Your task to perform on an android device: Empty the shopping cart on target.com. Image 0: 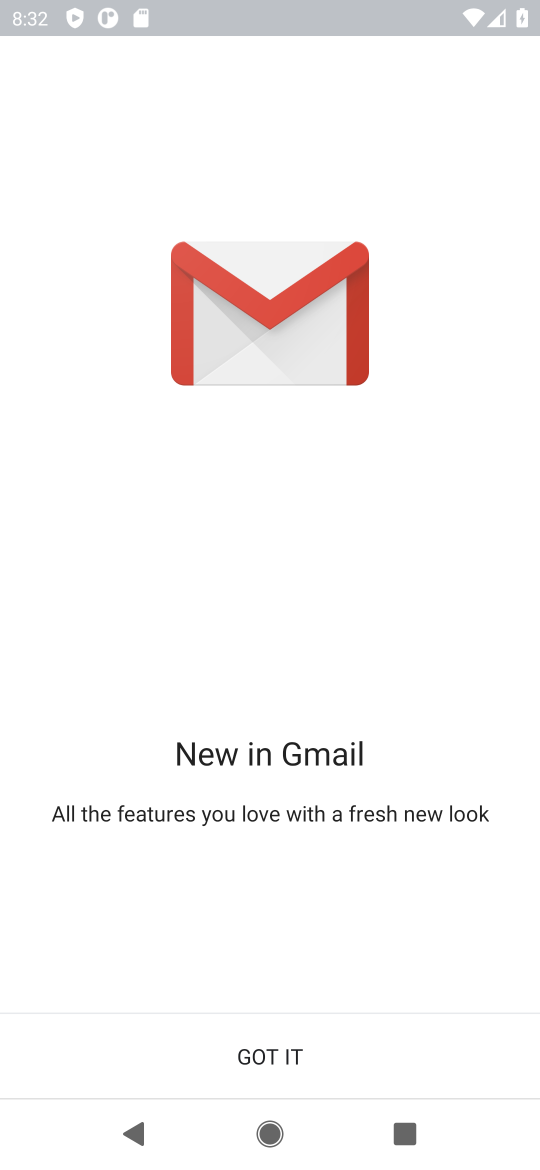
Step 0: press home button
Your task to perform on an android device: Empty the shopping cart on target.com. Image 1: 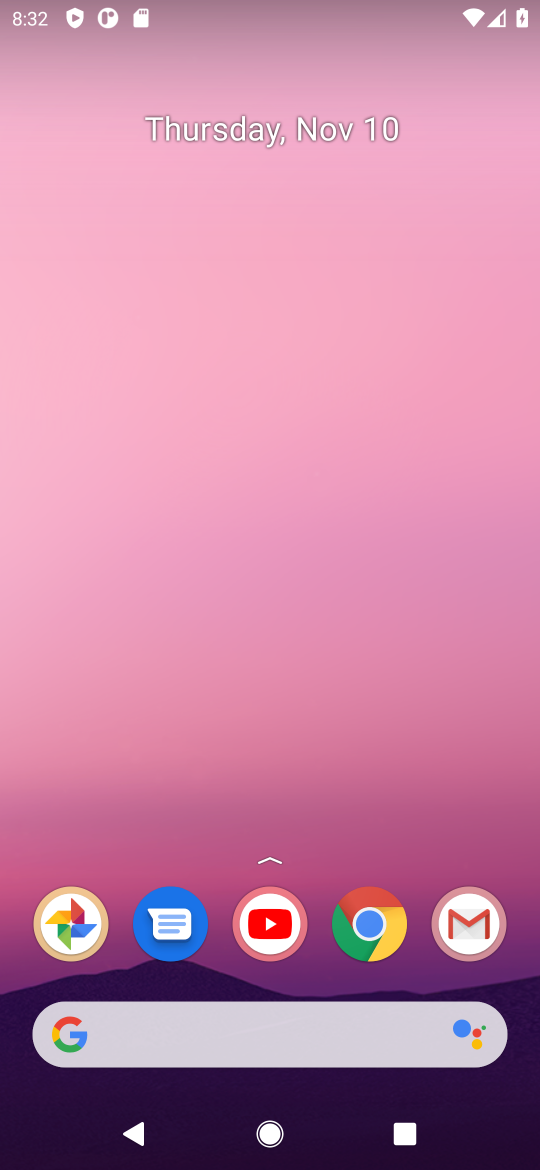
Step 1: click (369, 933)
Your task to perform on an android device: Empty the shopping cart on target.com. Image 2: 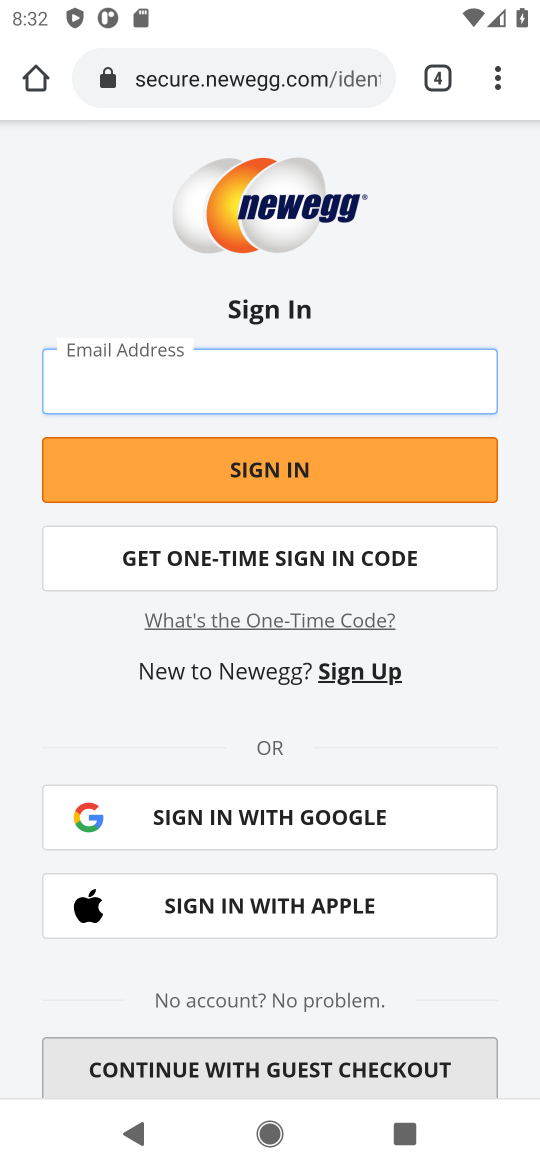
Step 2: click (249, 77)
Your task to perform on an android device: Empty the shopping cart on target.com. Image 3: 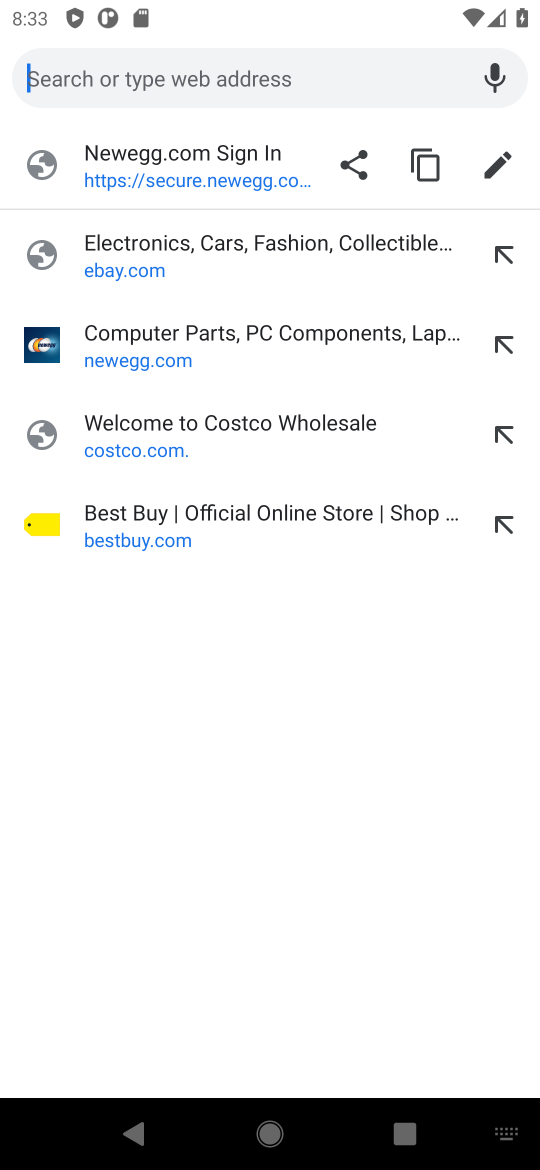
Step 3: type "target.com"
Your task to perform on an android device: Empty the shopping cart on target.com. Image 4: 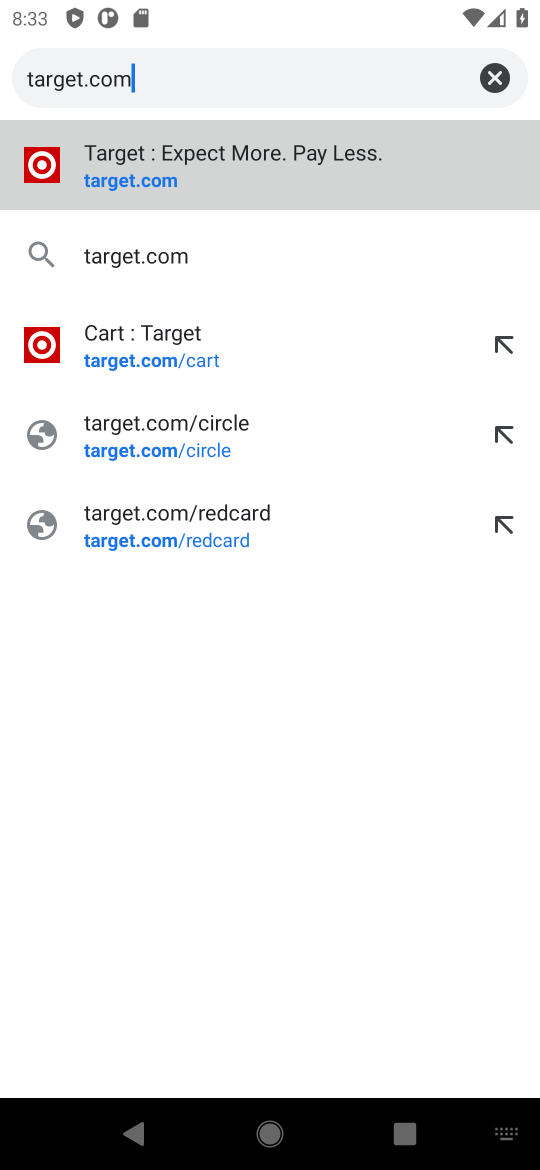
Step 4: click (151, 172)
Your task to perform on an android device: Empty the shopping cart on target.com. Image 5: 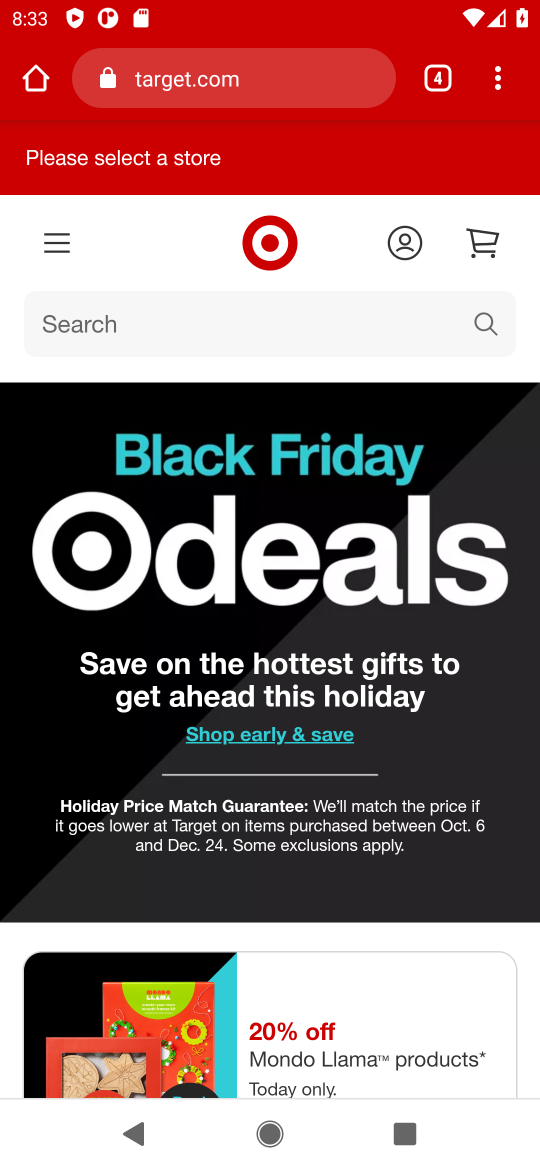
Step 5: click (466, 234)
Your task to perform on an android device: Empty the shopping cart on target.com. Image 6: 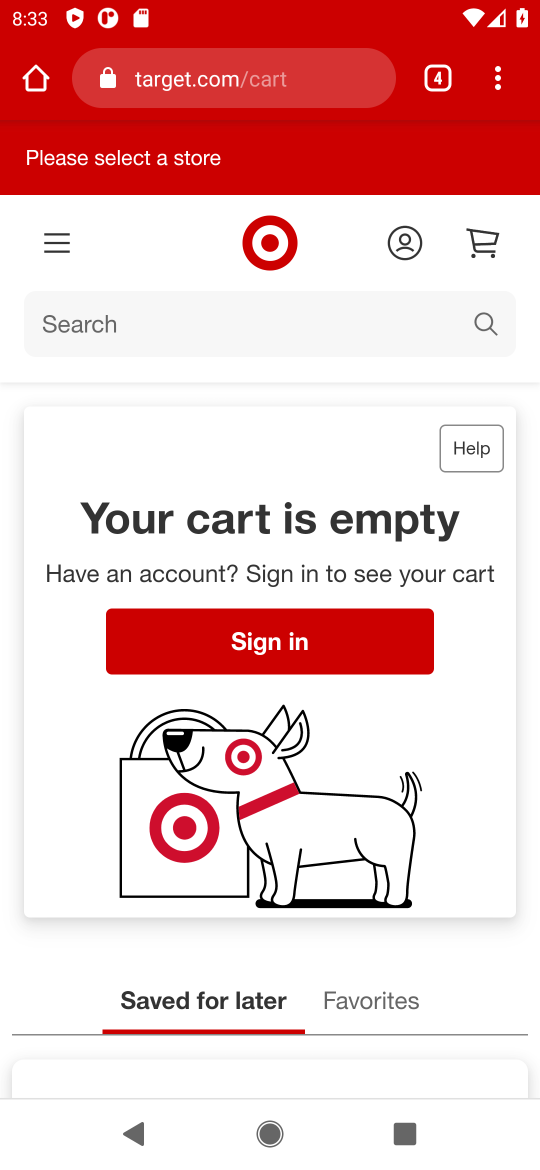
Step 6: task complete